Your task to perform on an android device: Set the phone to "Do not disturb". Image 0: 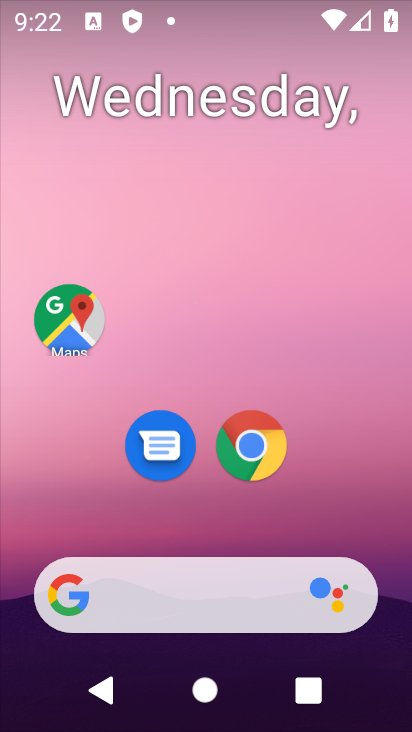
Step 0: drag from (372, 499) to (407, 270)
Your task to perform on an android device: Set the phone to "Do not disturb". Image 1: 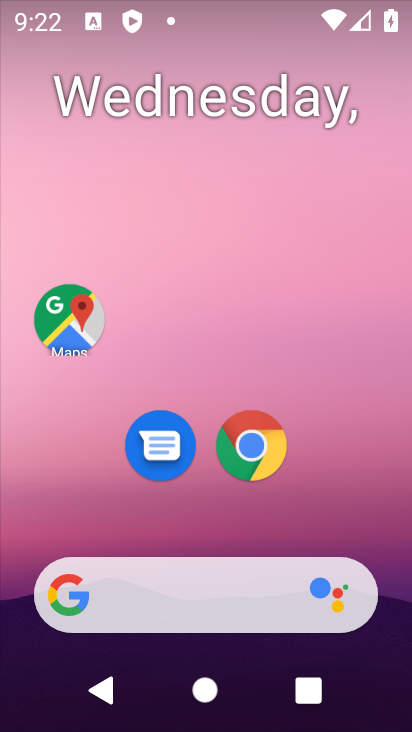
Step 1: drag from (369, 660) to (376, 82)
Your task to perform on an android device: Set the phone to "Do not disturb". Image 2: 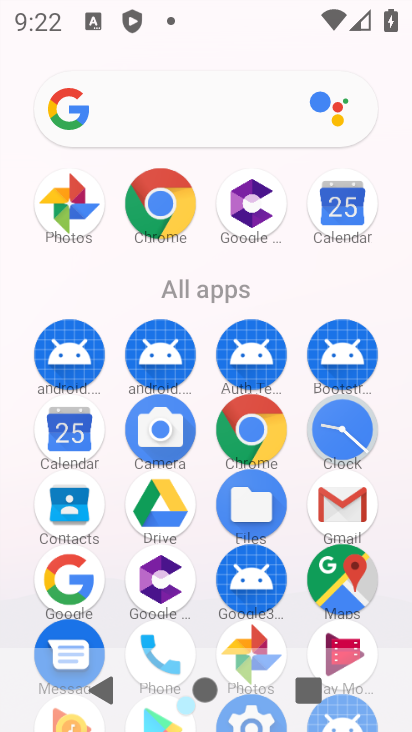
Step 2: drag from (404, 608) to (406, 210)
Your task to perform on an android device: Set the phone to "Do not disturb". Image 3: 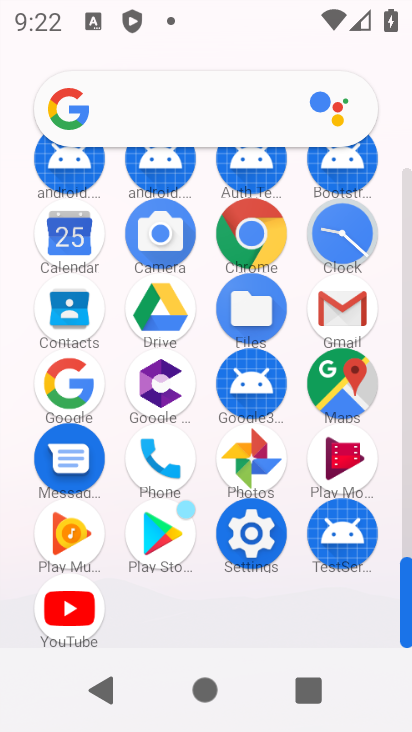
Step 3: click (254, 534)
Your task to perform on an android device: Set the phone to "Do not disturb". Image 4: 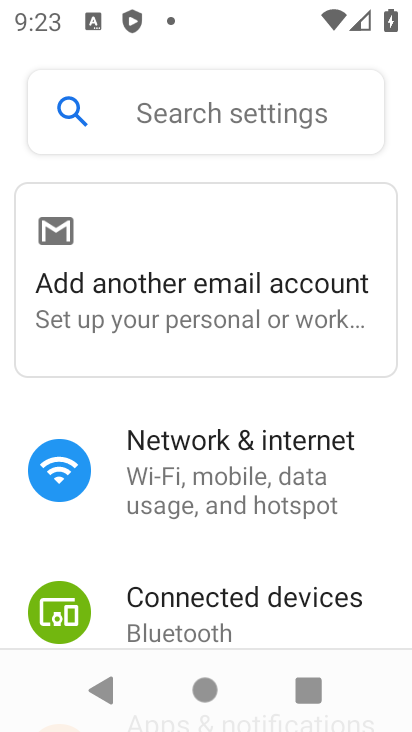
Step 4: drag from (265, 571) to (291, 242)
Your task to perform on an android device: Set the phone to "Do not disturb". Image 5: 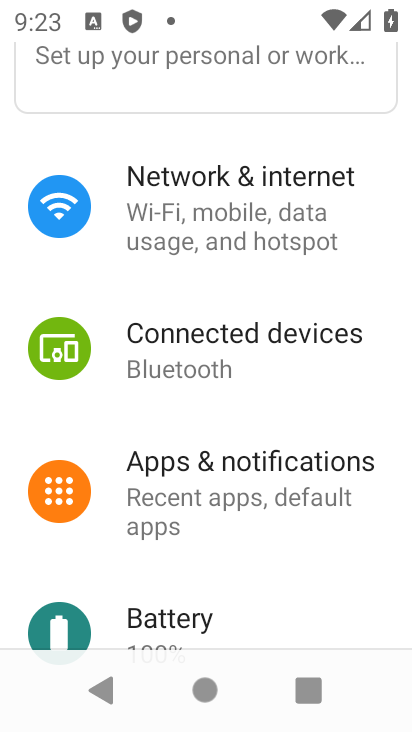
Step 5: drag from (263, 490) to (348, 91)
Your task to perform on an android device: Set the phone to "Do not disturb". Image 6: 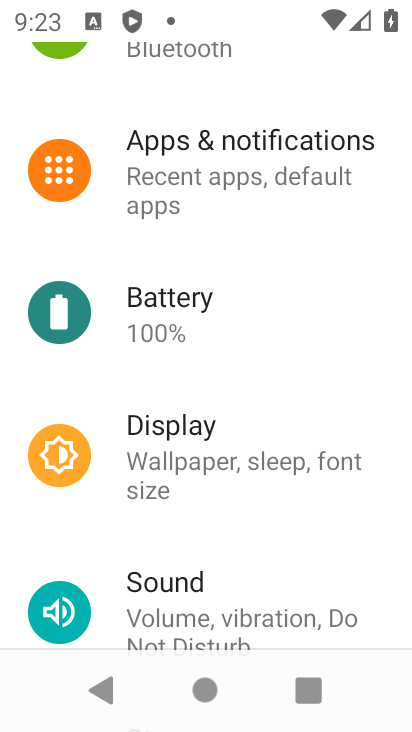
Step 6: drag from (282, 531) to (319, 176)
Your task to perform on an android device: Set the phone to "Do not disturb". Image 7: 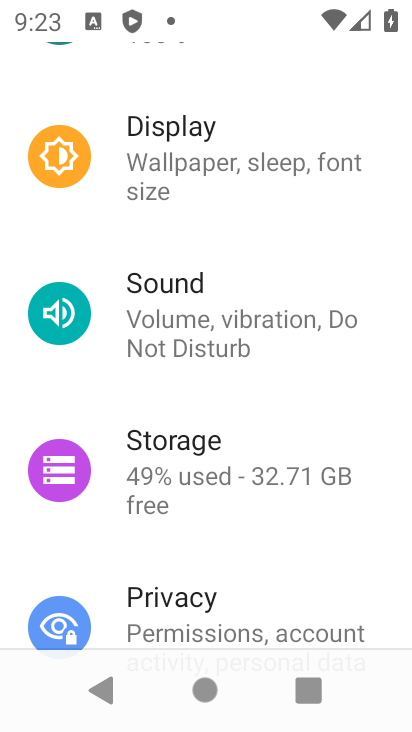
Step 7: click (209, 332)
Your task to perform on an android device: Set the phone to "Do not disturb". Image 8: 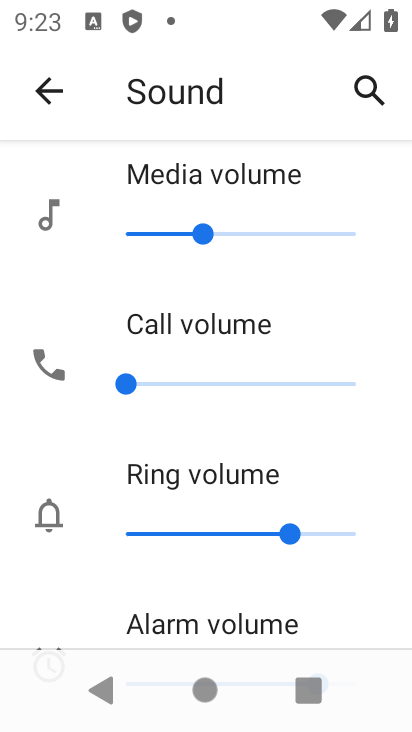
Step 8: task complete